Your task to perform on an android device: open wifi settings Image 0: 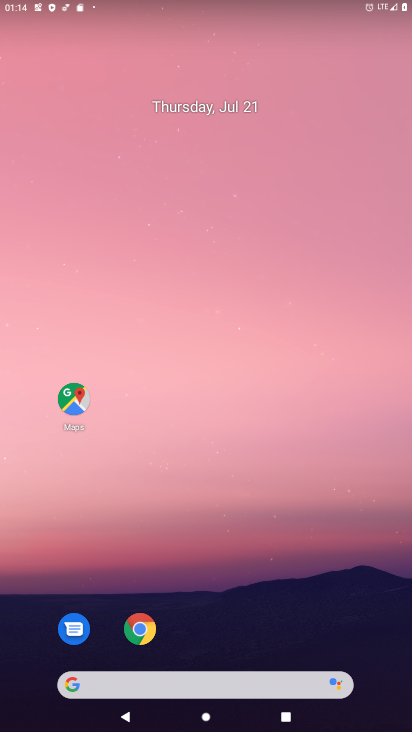
Step 0: drag from (209, 264) to (178, 1)
Your task to perform on an android device: open wifi settings Image 1: 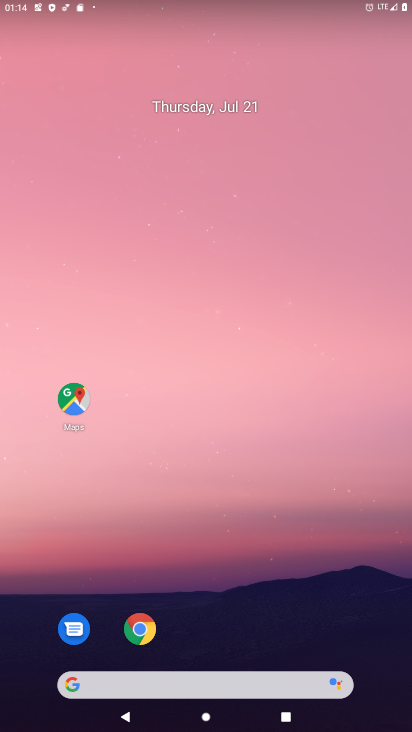
Step 1: drag from (294, 552) to (213, 51)
Your task to perform on an android device: open wifi settings Image 2: 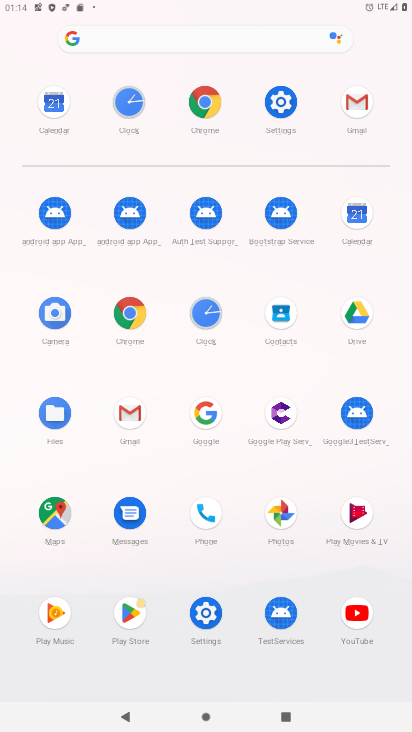
Step 2: click (275, 111)
Your task to perform on an android device: open wifi settings Image 3: 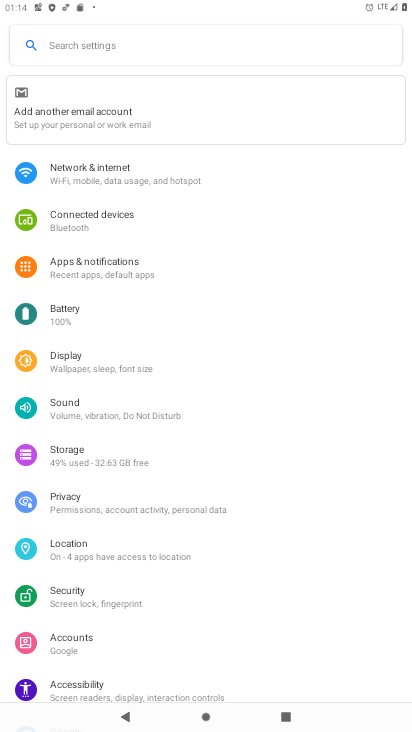
Step 3: click (120, 188)
Your task to perform on an android device: open wifi settings Image 4: 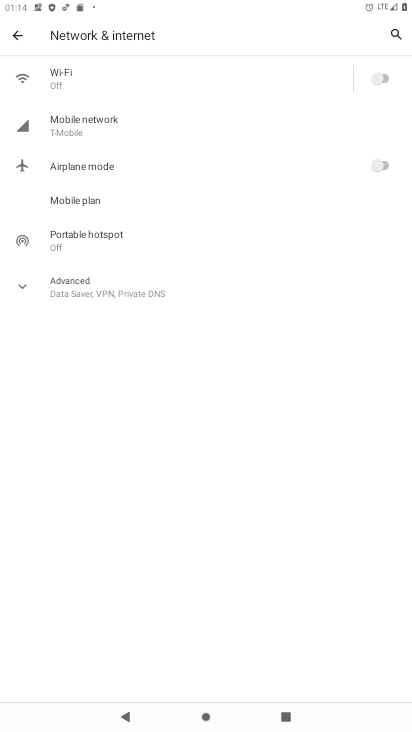
Step 4: task complete